Your task to perform on an android device: clear history in the chrome app Image 0: 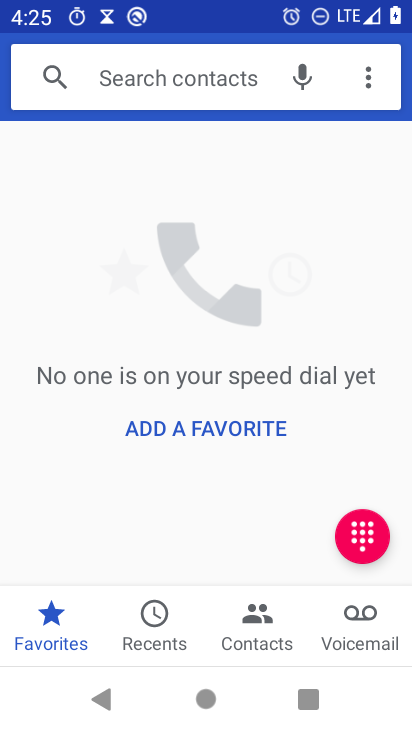
Step 0: press home button
Your task to perform on an android device: clear history in the chrome app Image 1: 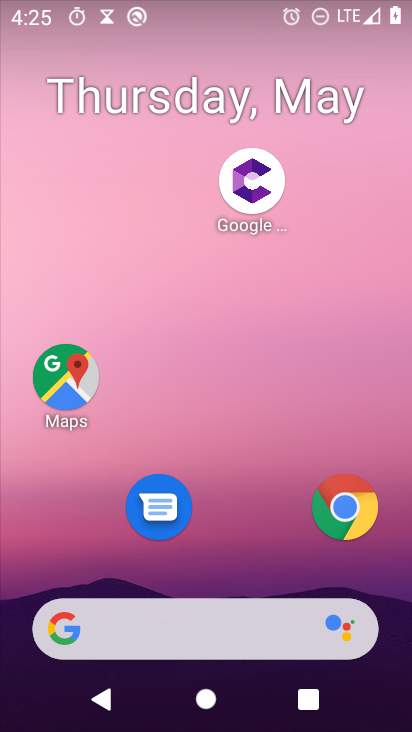
Step 1: drag from (247, 527) to (265, 127)
Your task to perform on an android device: clear history in the chrome app Image 2: 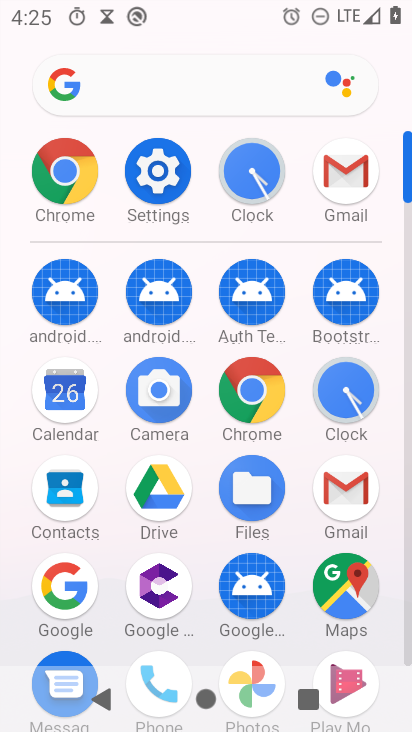
Step 2: click (62, 167)
Your task to perform on an android device: clear history in the chrome app Image 3: 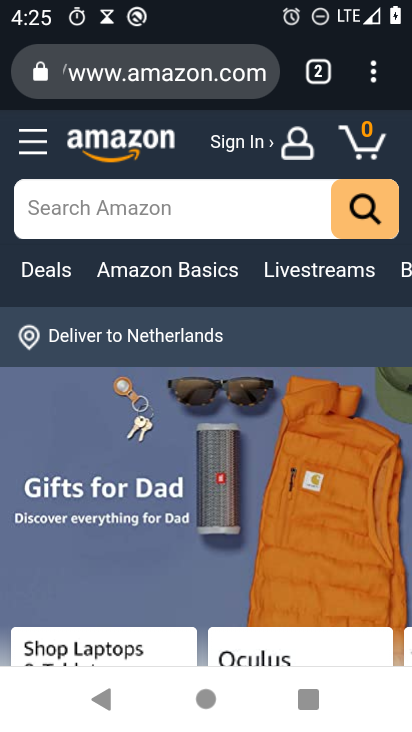
Step 3: click (376, 70)
Your task to perform on an android device: clear history in the chrome app Image 4: 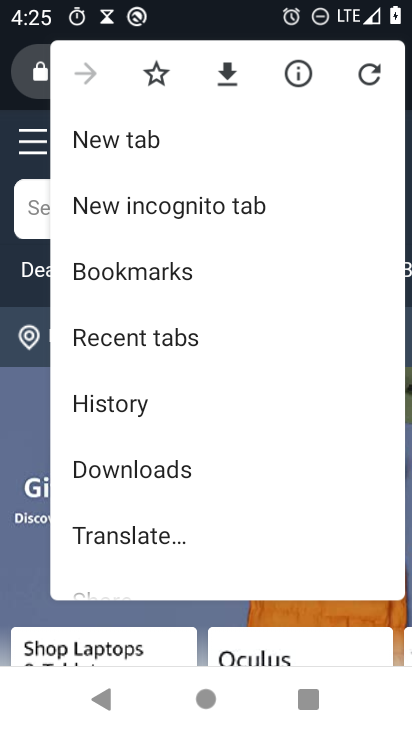
Step 4: click (106, 413)
Your task to perform on an android device: clear history in the chrome app Image 5: 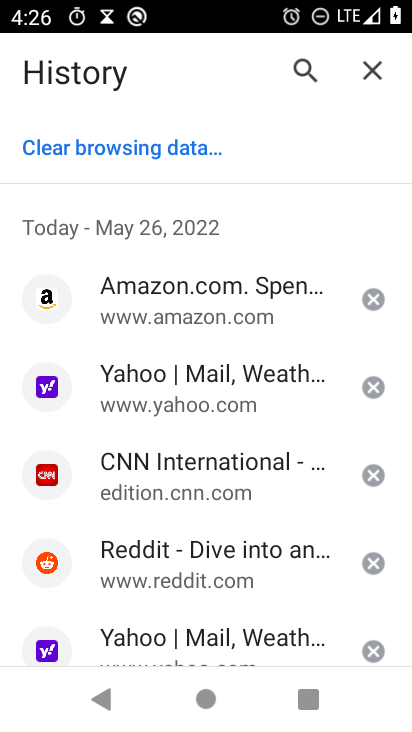
Step 5: click (100, 151)
Your task to perform on an android device: clear history in the chrome app Image 6: 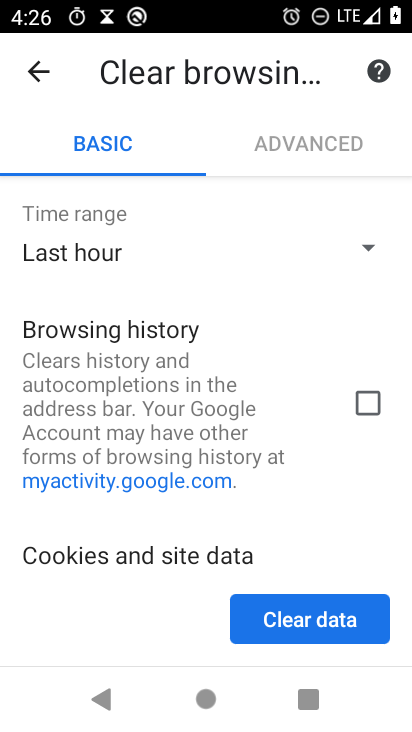
Step 6: click (361, 396)
Your task to perform on an android device: clear history in the chrome app Image 7: 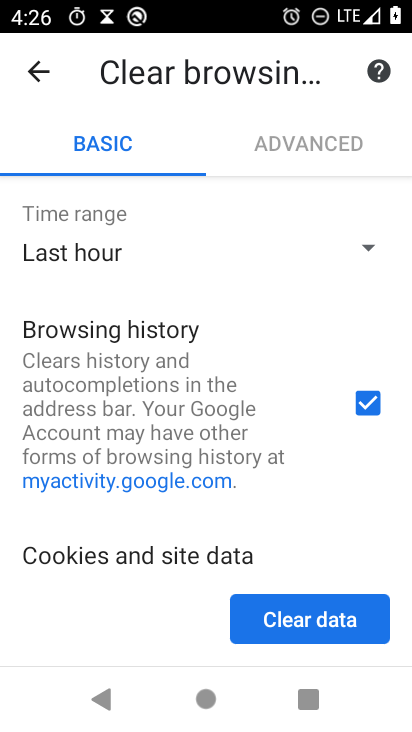
Step 7: click (302, 609)
Your task to perform on an android device: clear history in the chrome app Image 8: 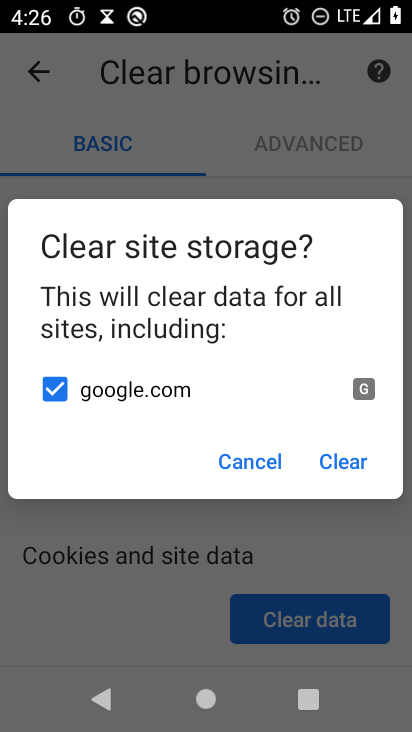
Step 8: click (332, 460)
Your task to perform on an android device: clear history in the chrome app Image 9: 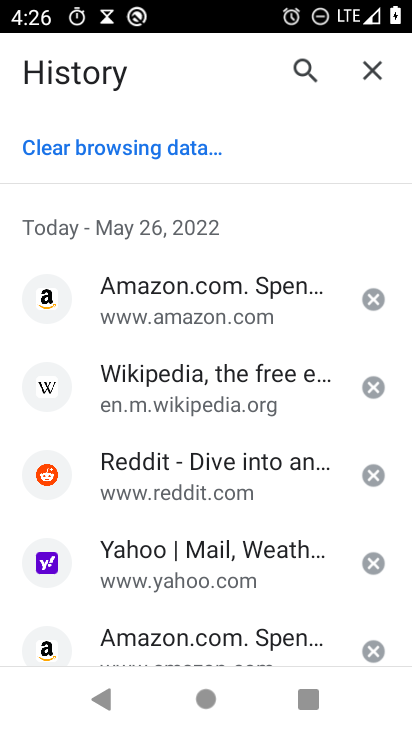
Step 9: click (112, 147)
Your task to perform on an android device: clear history in the chrome app Image 10: 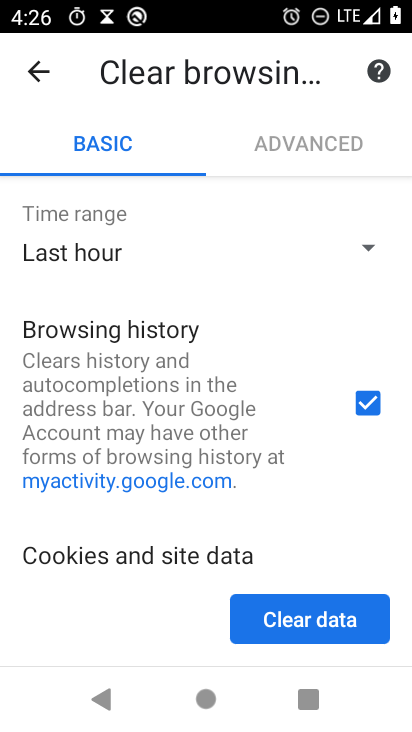
Step 10: click (271, 250)
Your task to perform on an android device: clear history in the chrome app Image 11: 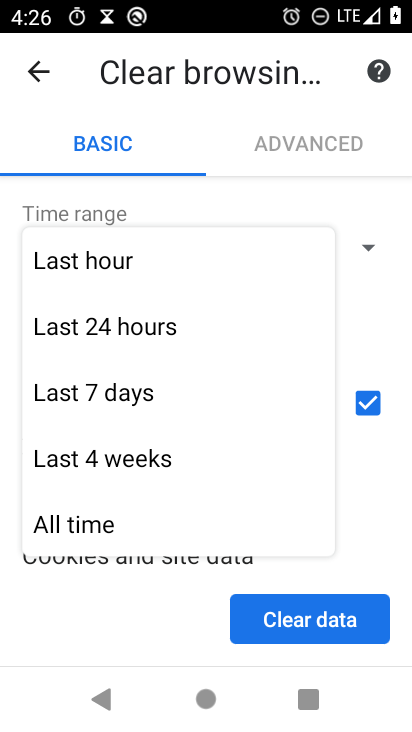
Step 11: click (100, 521)
Your task to perform on an android device: clear history in the chrome app Image 12: 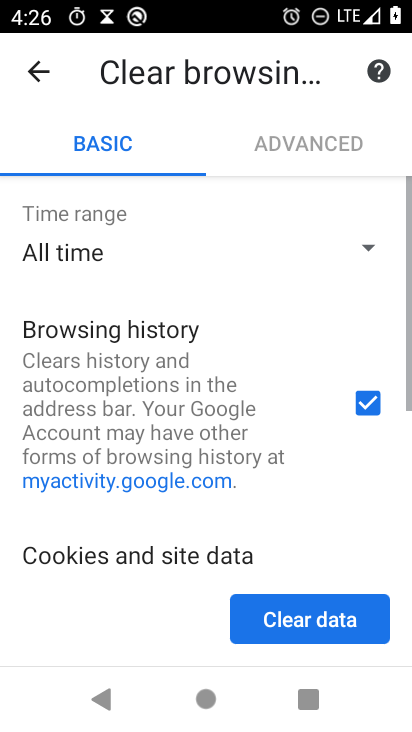
Step 12: click (302, 613)
Your task to perform on an android device: clear history in the chrome app Image 13: 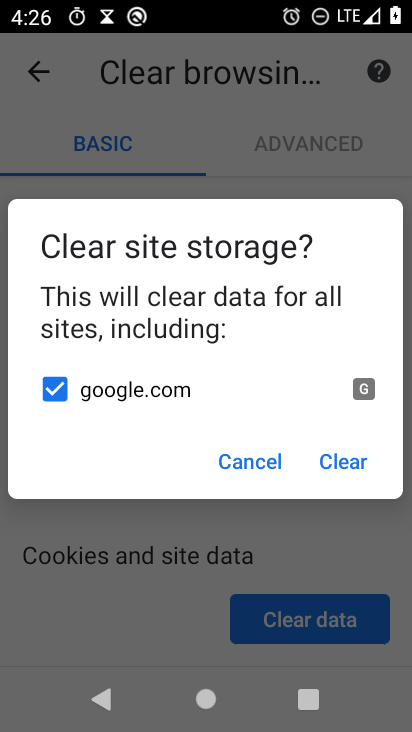
Step 13: click (352, 466)
Your task to perform on an android device: clear history in the chrome app Image 14: 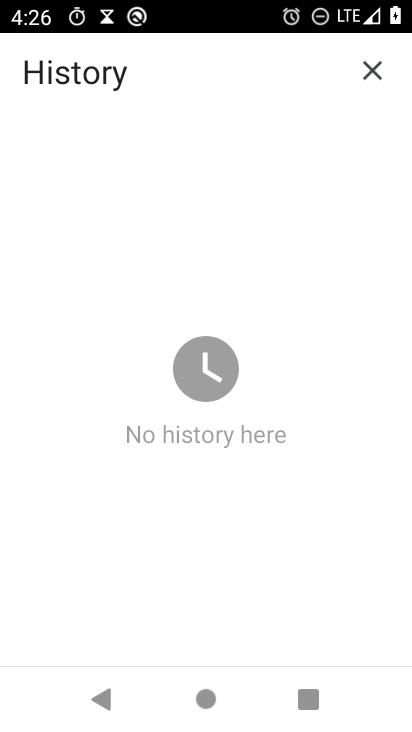
Step 14: task complete